Your task to perform on an android device: show emergency info Image 0: 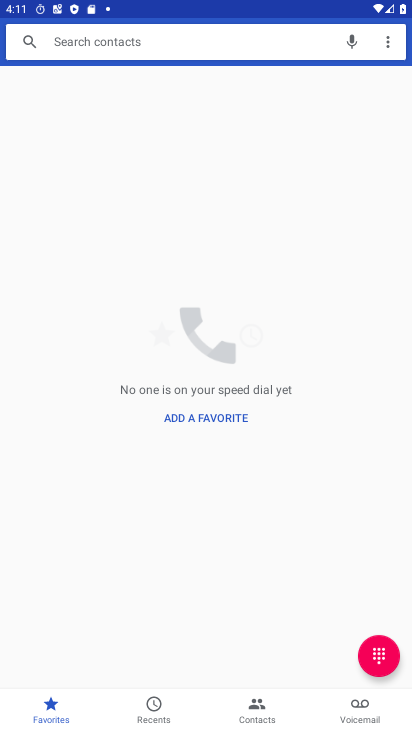
Step 0: press back button
Your task to perform on an android device: show emergency info Image 1: 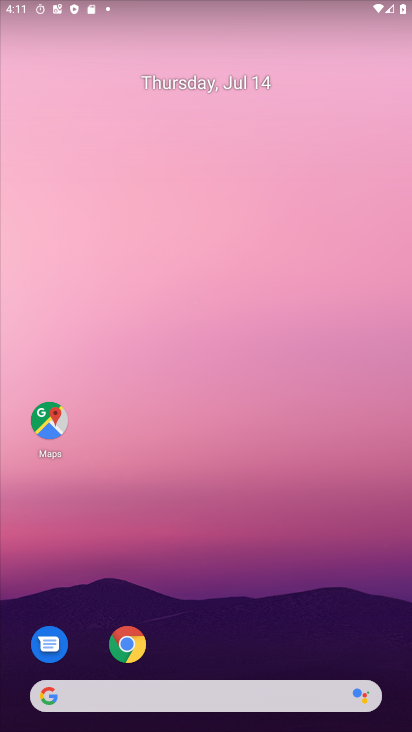
Step 1: drag from (213, 650) to (240, 26)
Your task to perform on an android device: show emergency info Image 2: 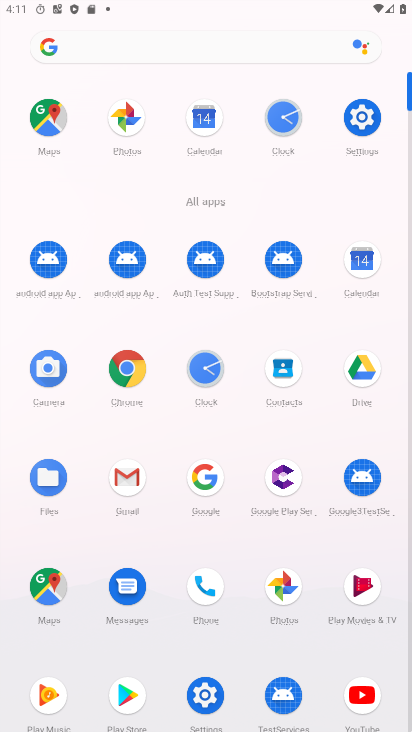
Step 2: click (377, 122)
Your task to perform on an android device: show emergency info Image 3: 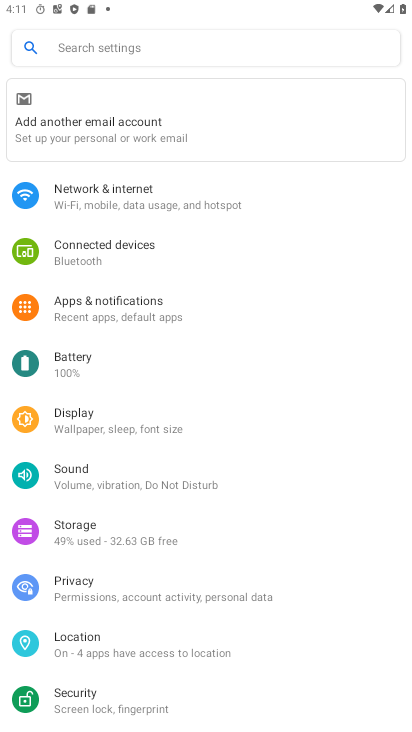
Step 3: drag from (138, 617) to (235, 0)
Your task to perform on an android device: show emergency info Image 4: 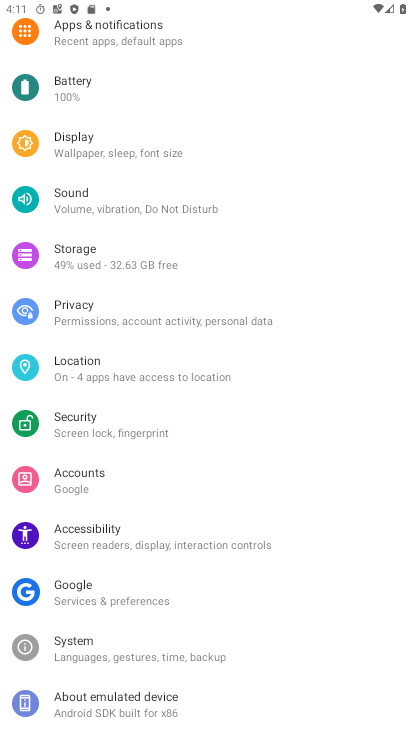
Step 4: click (134, 713)
Your task to perform on an android device: show emergency info Image 5: 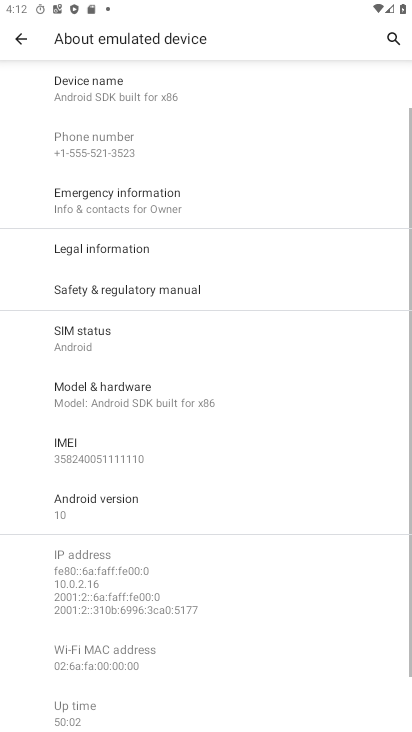
Step 5: click (74, 194)
Your task to perform on an android device: show emergency info Image 6: 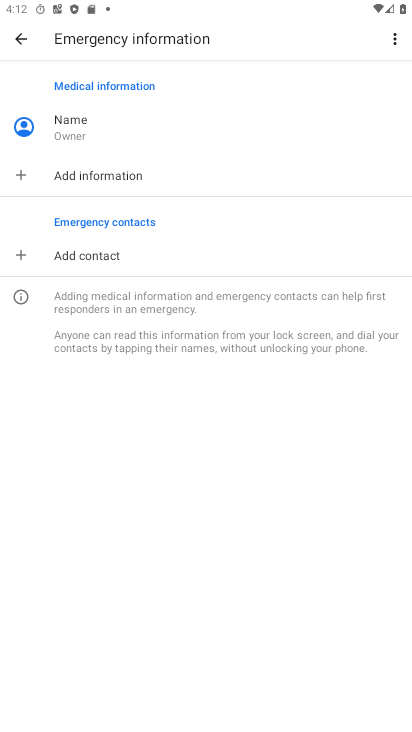
Step 6: task complete